Your task to perform on an android device: Open the stopwatch Image 0: 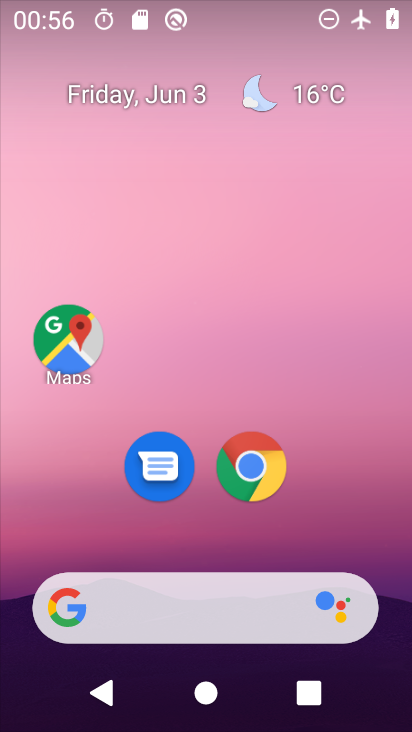
Step 0: drag from (227, 544) to (231, 157)
Your task to perform on an android device: Open the stopwatch Image 1: 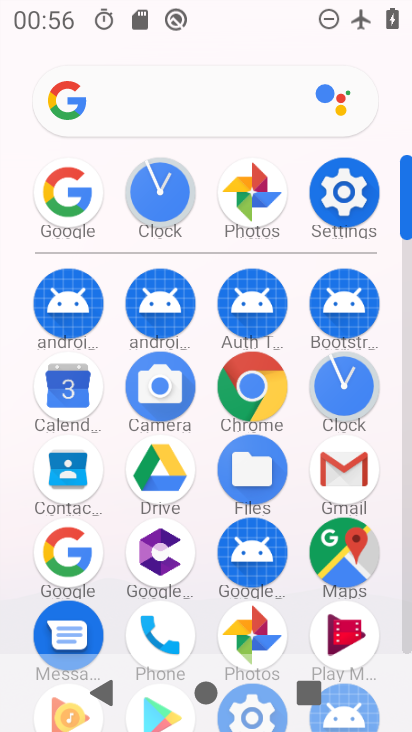
Step 1: click (322, 347)
Your task to perform on an android device: Open the stopwatch Image 2: 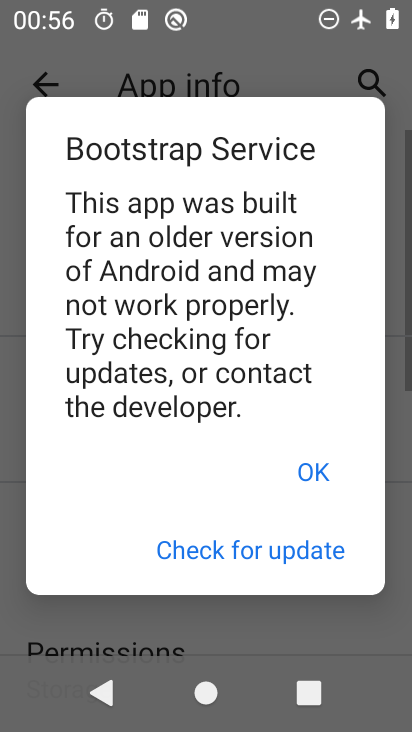
Step 2: press home button
Your task to perform on an android device: Open the stopwatch Image 3: 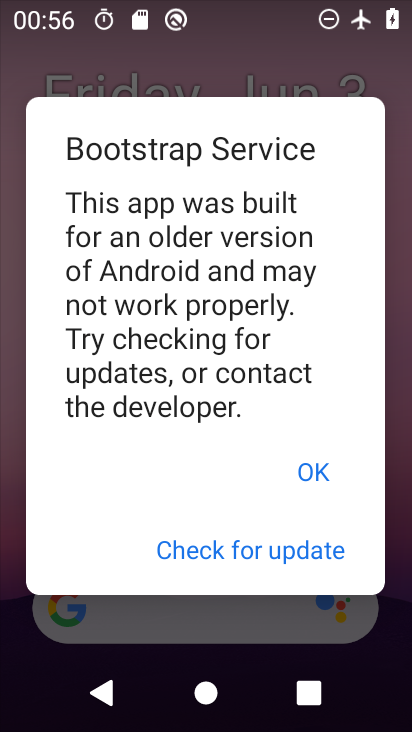
Step 3: click (311, 472)
Your task to perform on an android device: Open the stopwatch Image 4: 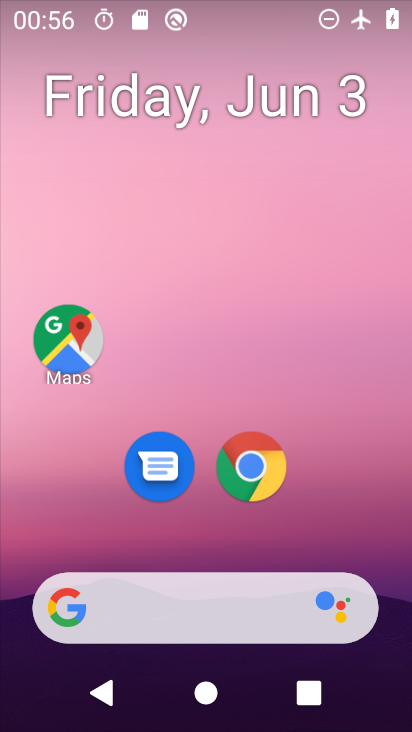
Step 4: drag from (216, 555) to (226, 188)
Your task to perform on an android device: Open the stopwatch Image 5: 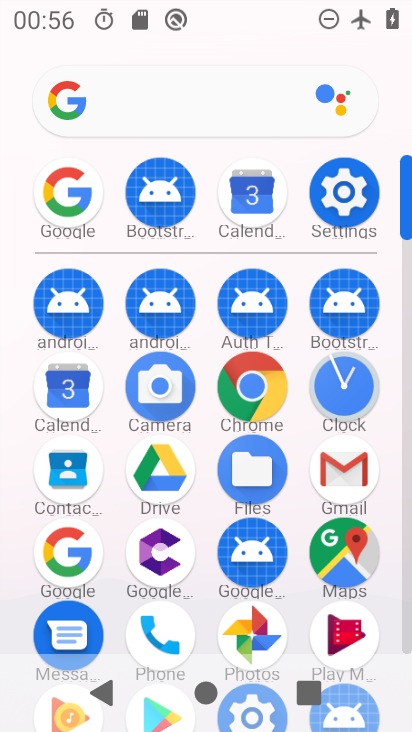
Step 5: click (321, 387)
Your task to perform on an android device: Open the stopwatch Image 6: 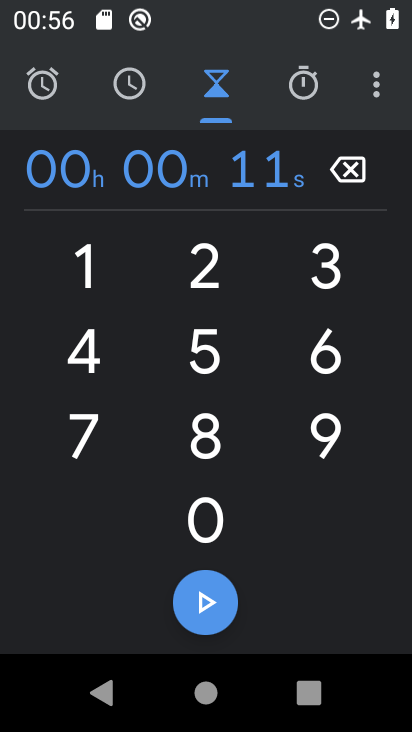
Step 6: click (288, 92)
Your task to perform on an android device: Open the stopwatch Image 7: 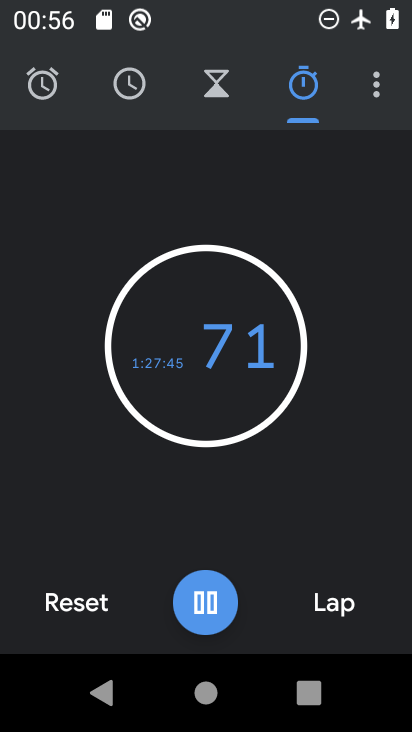
Step 7: task complete